Your task to perform on an android device: Open Google Chrome and click the shortcut for Amazon.com Image 0: 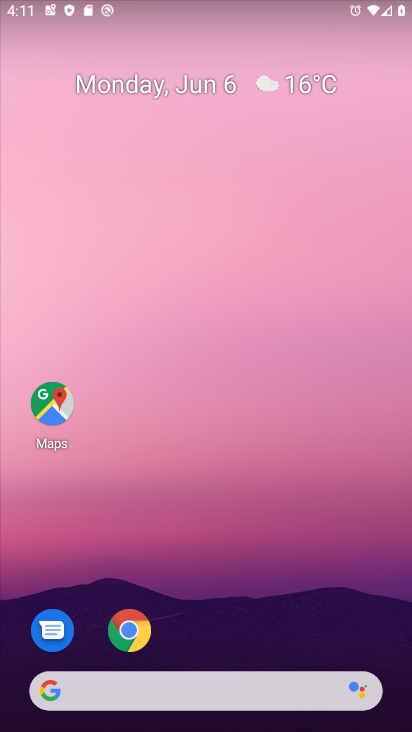
Step 0: click (129, 625)
Your task to perform on an android device: Open Google Chrome and click the shortcut for Amazon.com Image 1: 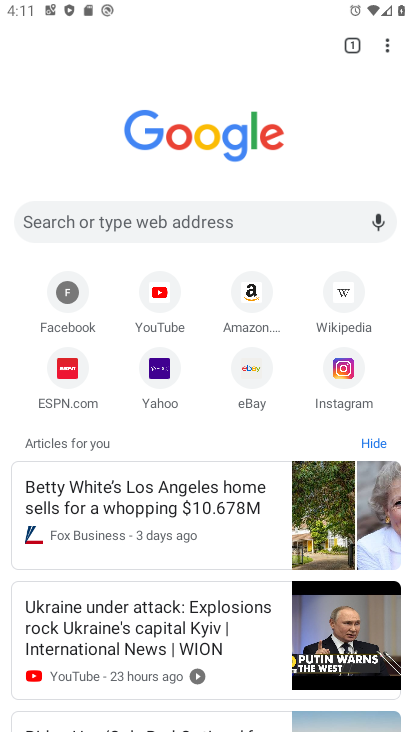
Step 1: click (244, 290)
Your task to perform on an android device: Open Google Chrome and click the shortcut for Amazon.com Image 2: 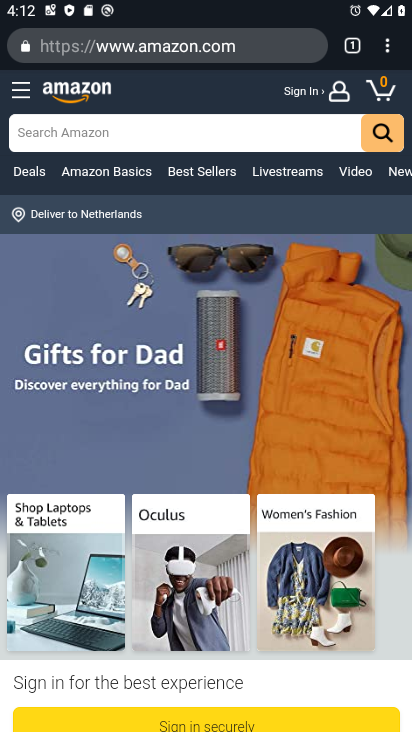
Step 2: task complete